Your task to perform on an android device: Search for usb-b on bestbuy.com, select the first entry, and add it to the cart. Image 0: 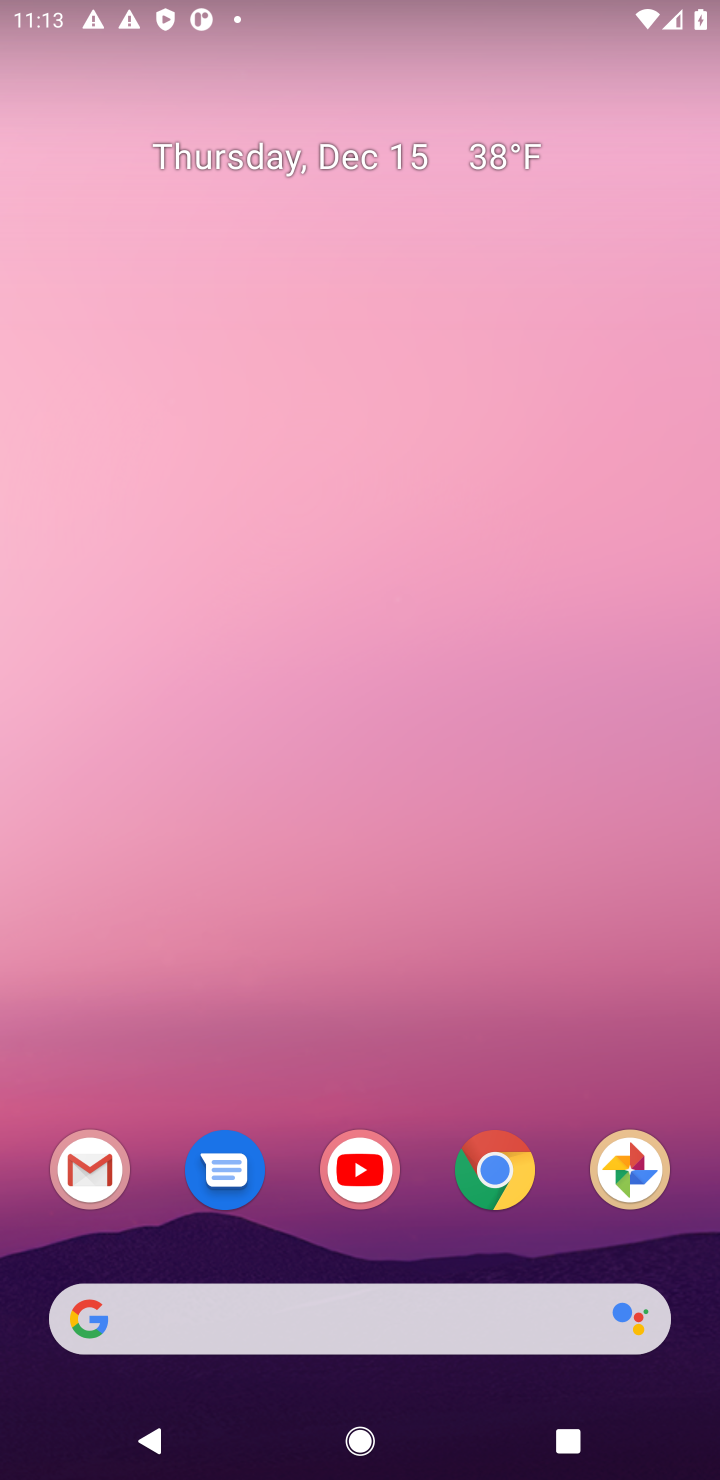
Step 0: click (502, 1189)
Your task to perform on an android device: Search for usb-b on bestbuy.com, select the first entry, and add it to the cart. Image 1: 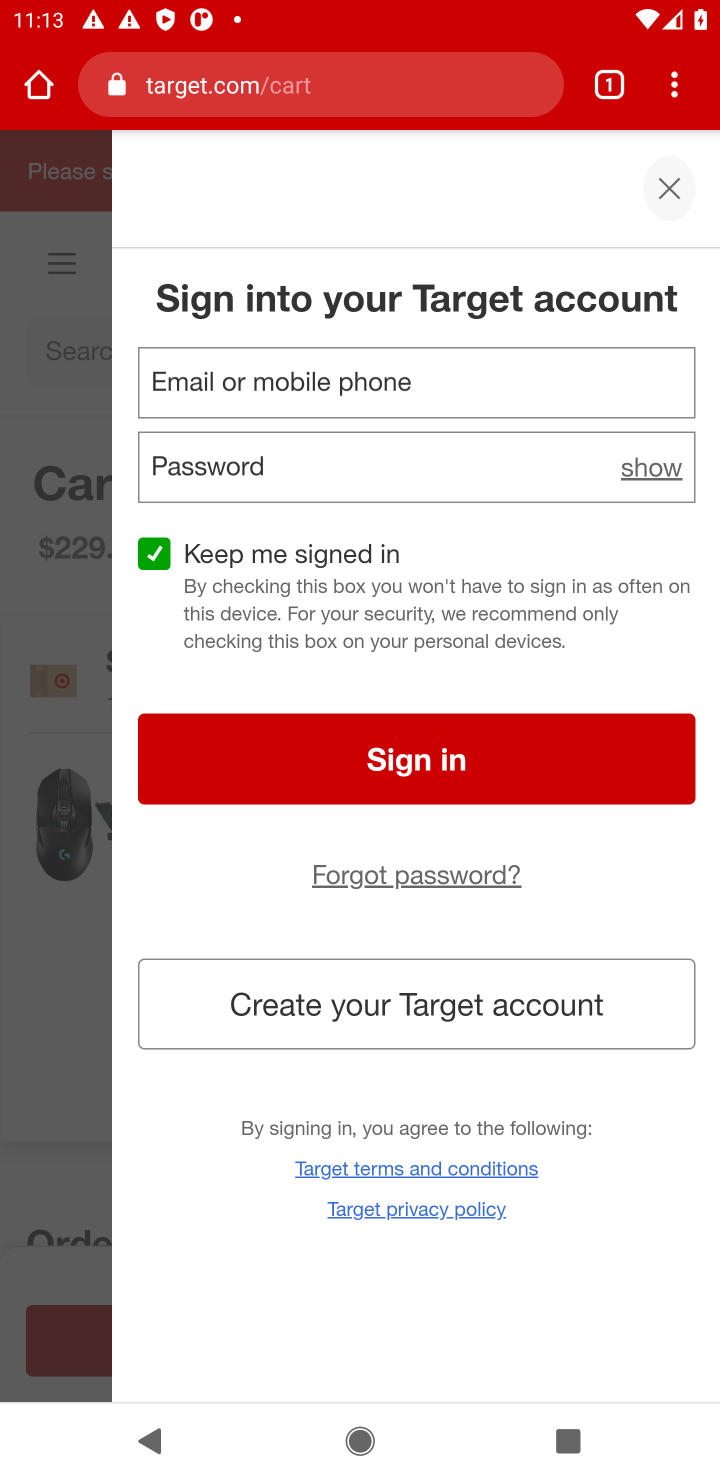
Step 1: click (335, 88)
Your task to perform on an android device: Search for usb-b on bestbuy.com, select the first entry, and add it to the cart. Image 2: 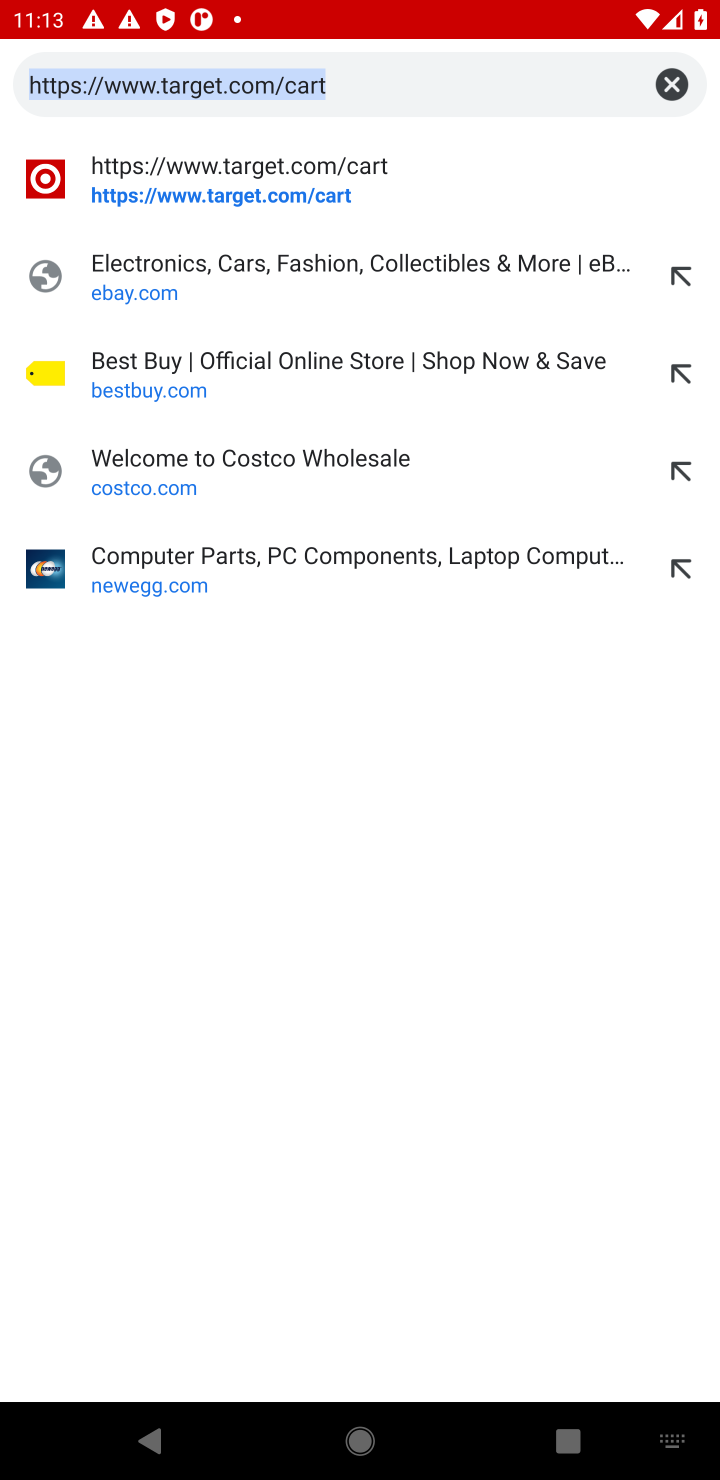
Step 2: click (171, 361)
Your task to perform on an android device: Search for usb-b on bestbuy.com, select the first entry, and add it to the cart. Image 3: 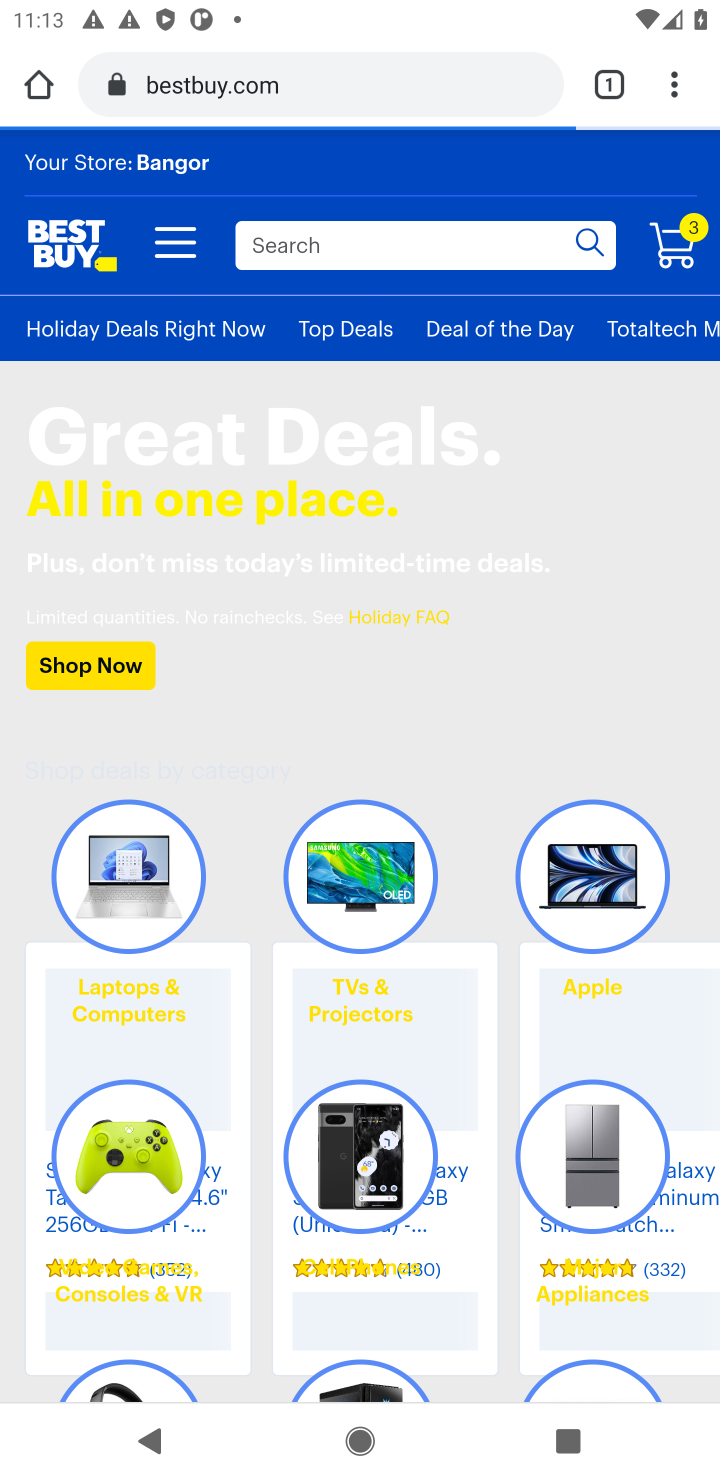
Step 3: click (291, 245)
Your task to perform on an android device: Search for usb-b on bestbuy.com, select the first entry, and add it to the cart. Image 4: 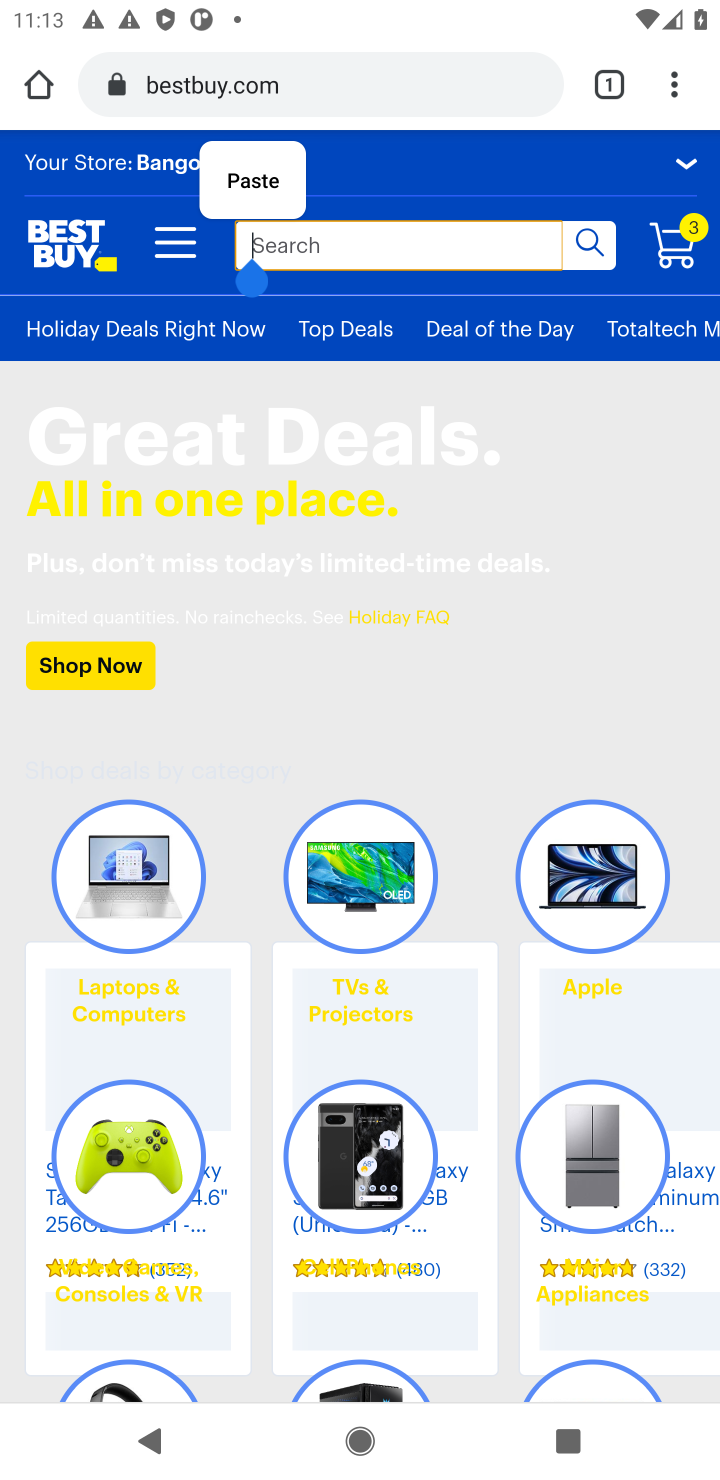
Step 4: type "usb-b"
Your task to perform on an android device: Search for usb-b on bestbuy.com, select the first entry, and add it to the cart. Image 5: 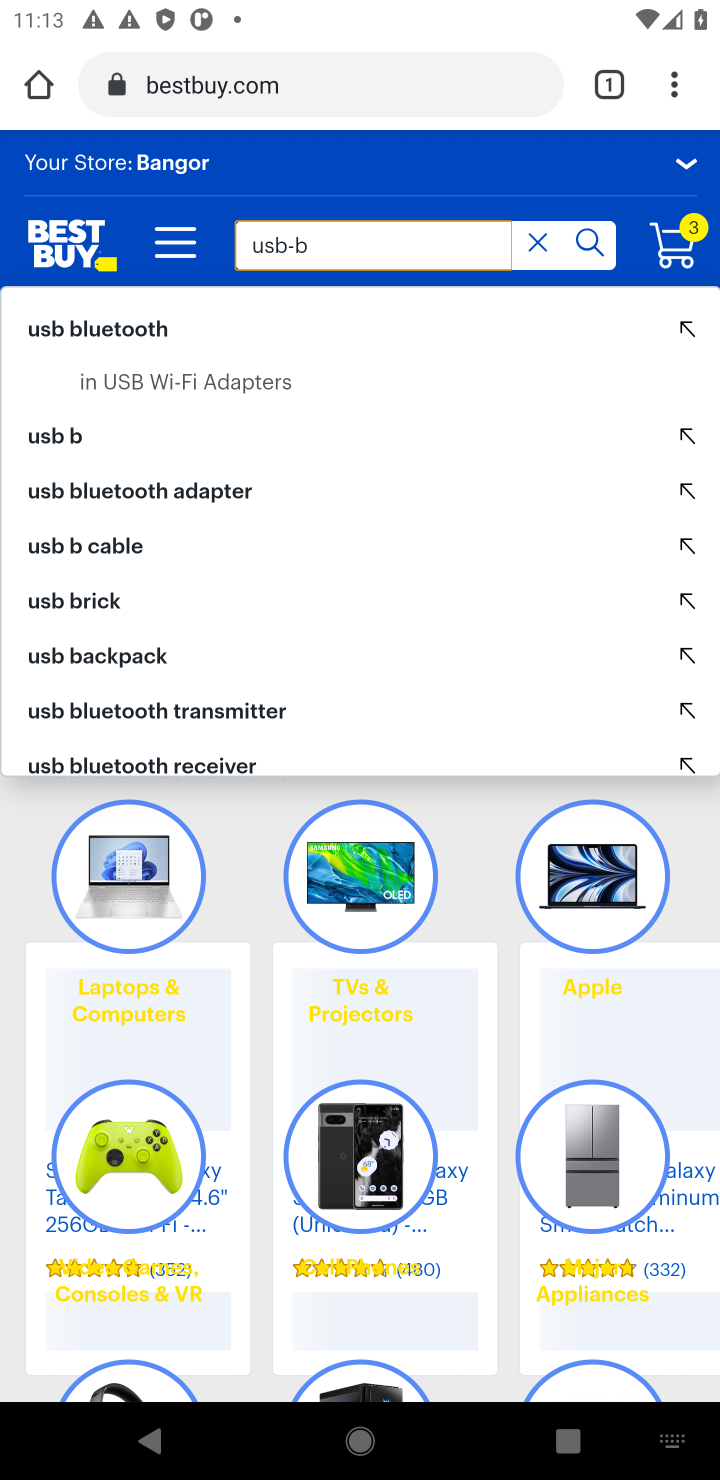
Step 5: click (57, 441)
Your task to perform on an android device: Search for usb-b on bestbuy.com, select the first entry, and add it to the cart. Image 6: 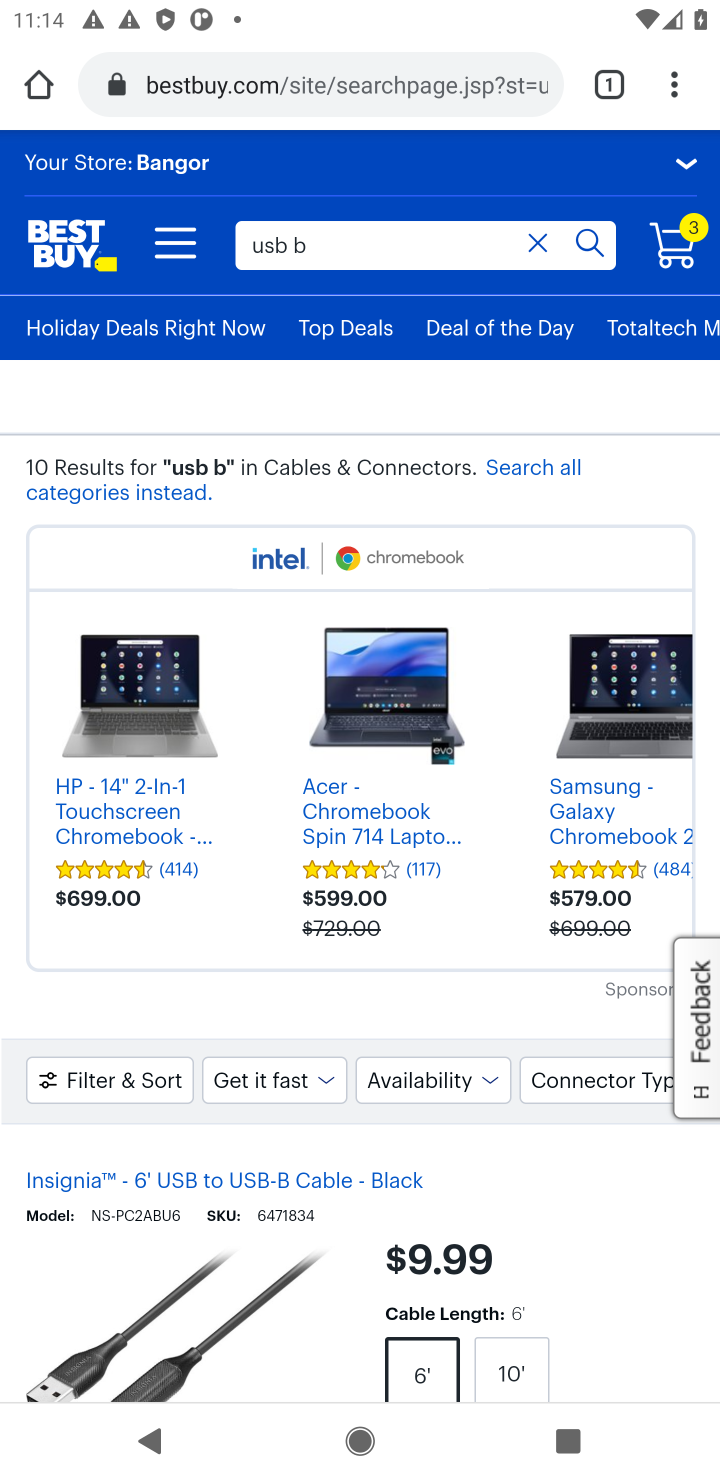
Step 6: drag from (162, 962) to (215, 645)
Your task to perform on an android device: Search for usb-b on bestbuy.com, select the first entry, and add it to the cart. Image 7: 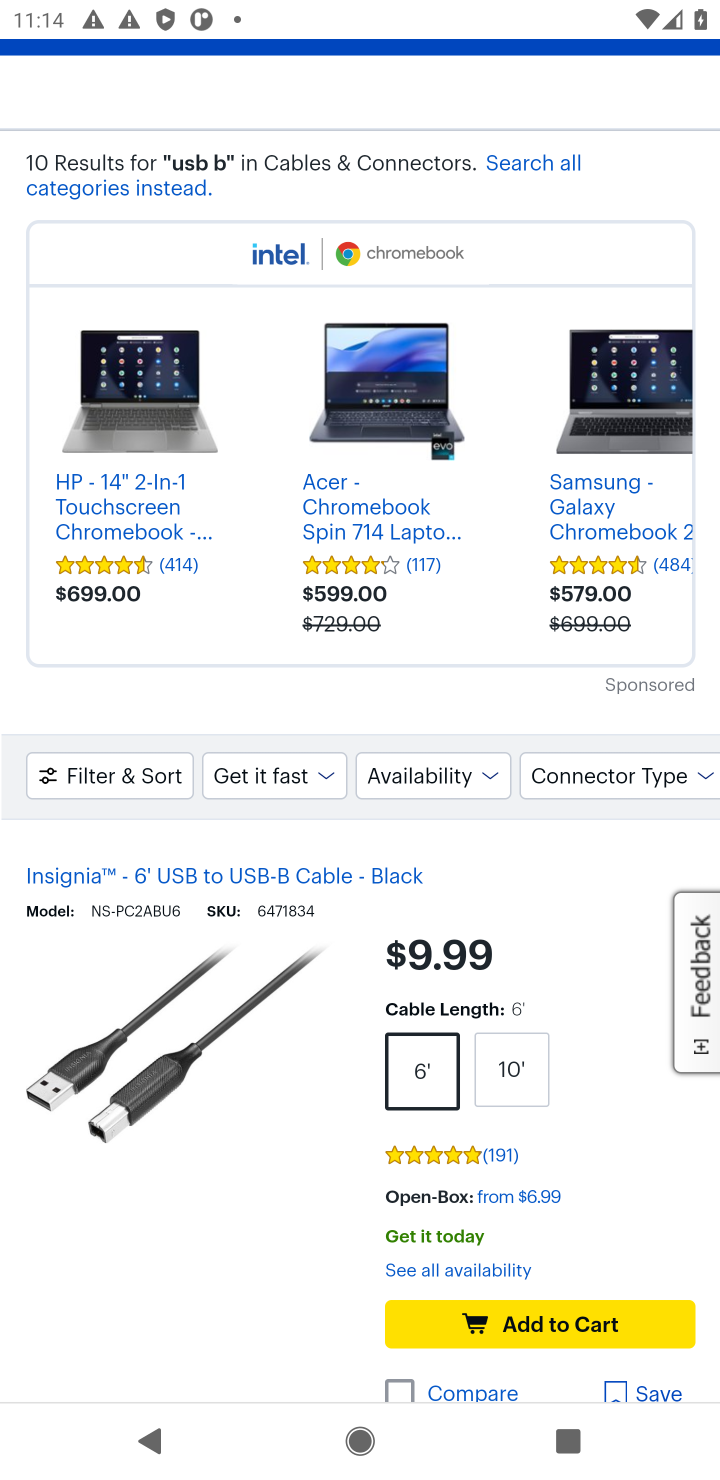
Step 7: click (518, 1327)
Your task to perform on an android device: Search for usb-b on bestbuy.com, select the first entry, and add it to the cart. Image 8: 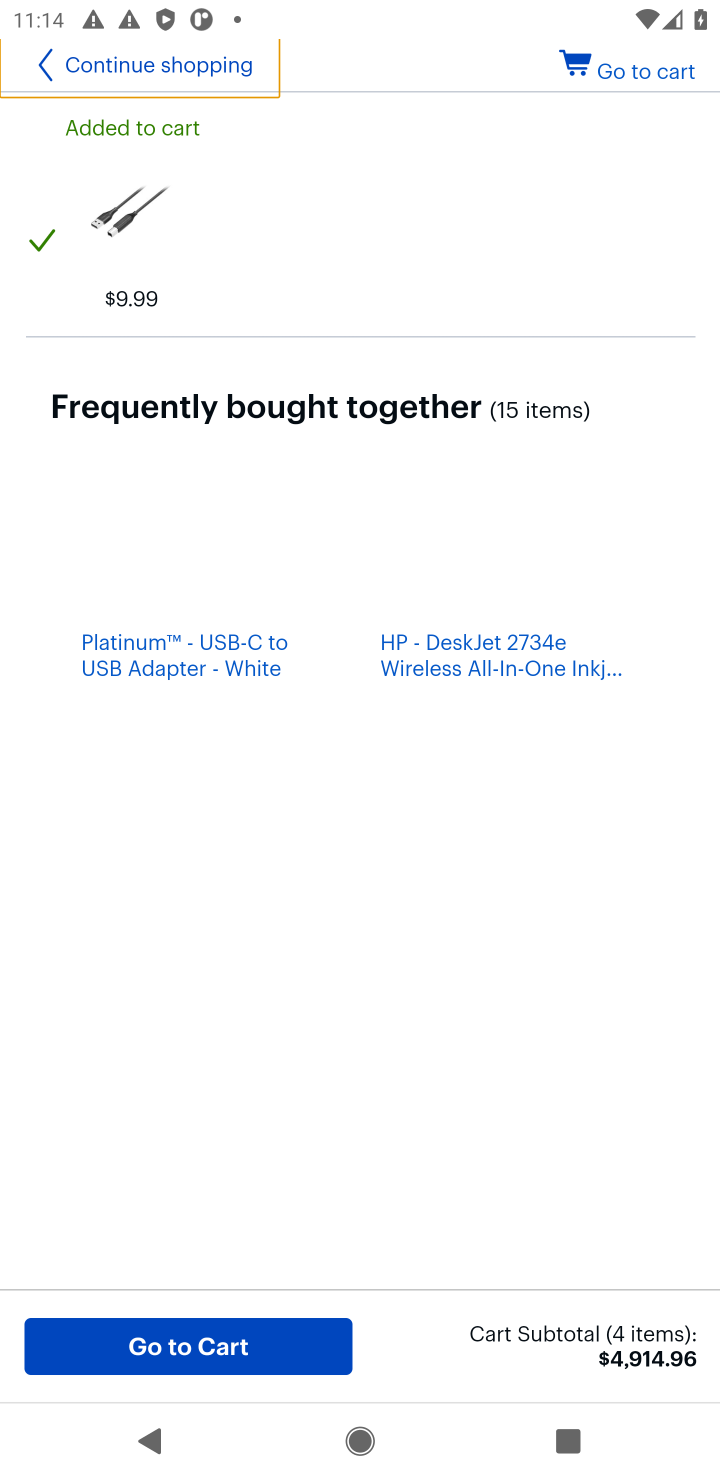
Step 8: task complete